Your task to perform on an android device: change the clock style Image 0: 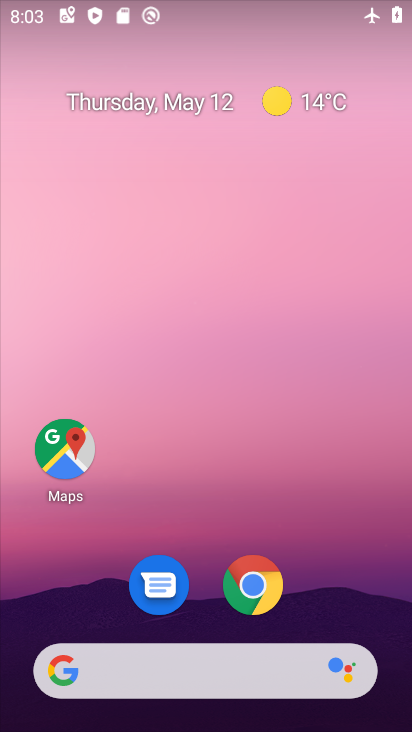
Step 0: drag from (197, 469) to (158, 73)
Your task to perform on an android device: change the clock style Image 1: 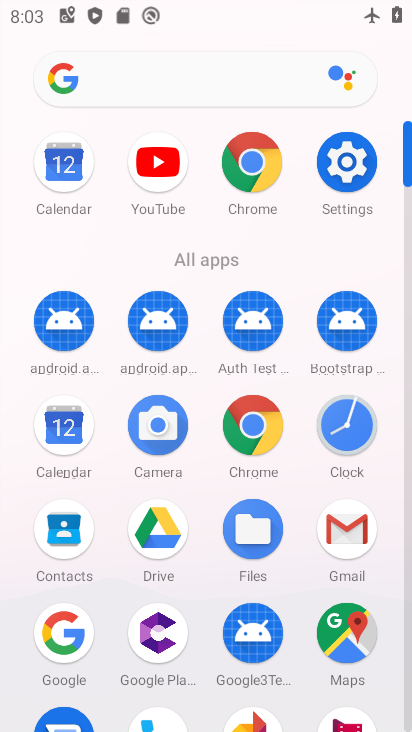
Step 1: click (353, 424)
Your task to perform on an android device: change the clock style Image 2: 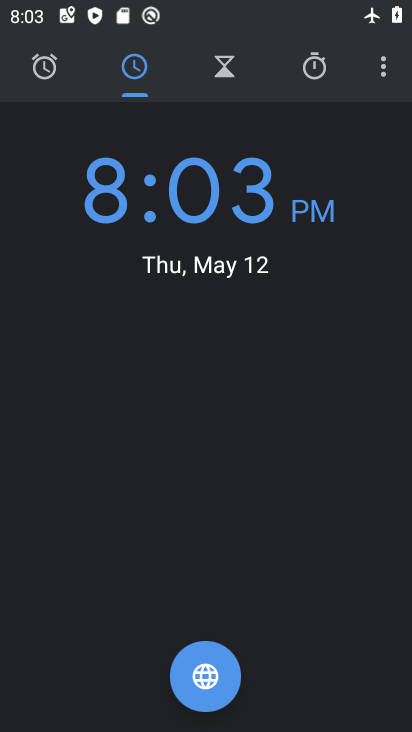
Step 2: click (380, 69)
Your task to perform on an android device: change the clock style Image 3: 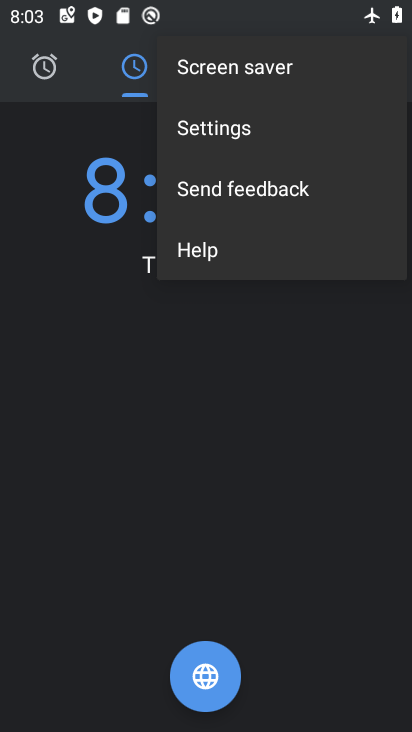
Step 3: click (273, 125)
Your task to perform on an android device: change the clock style Image 4: 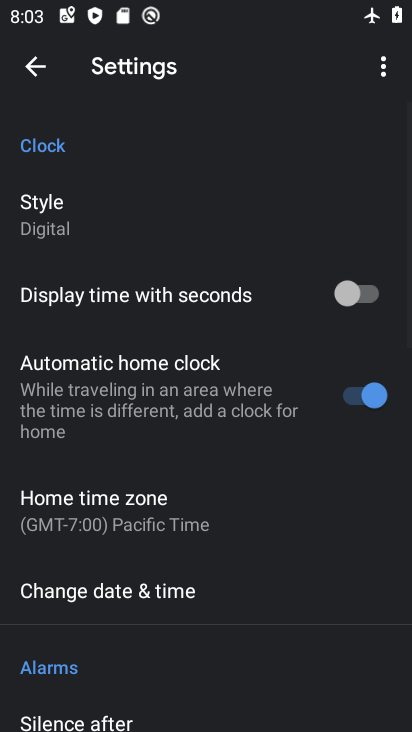
Step 4: click (78, 210)
Your task to perform on an android device: change the clock style Image 5: 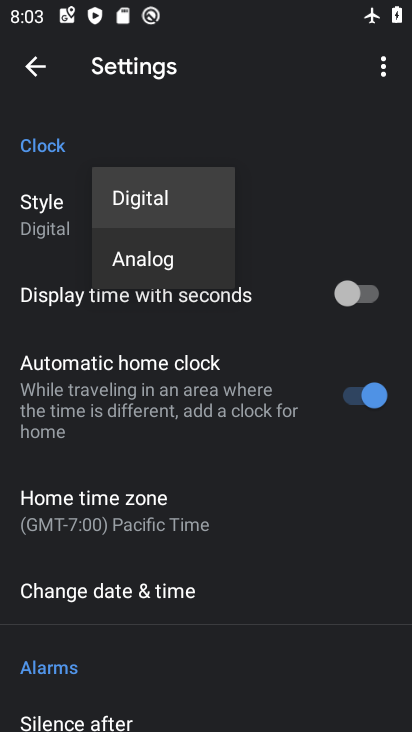
Step 5: click (135, 260)
Your task to perform on an android device: change the clock style Image 6: 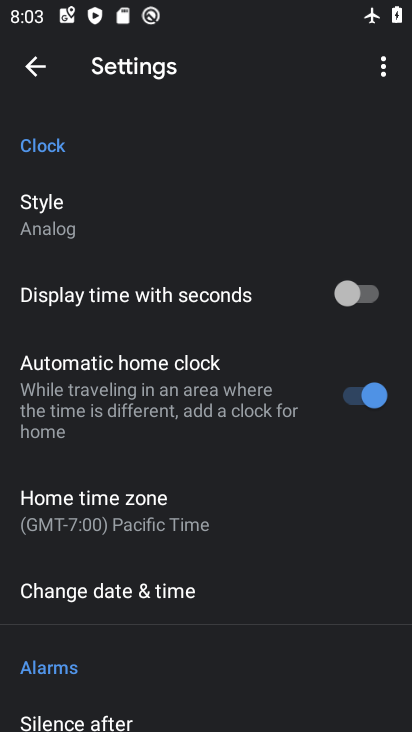
Step 6: click (38, 65)
Your task to perform on an android device: change the clock style Image 7: 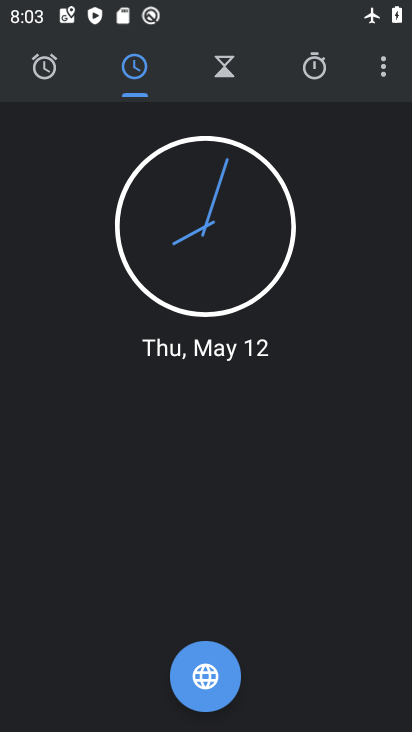
Step 7: task complete